Your task to perform on an android device: Clear the shopping cart on ebay.com. Image 0: 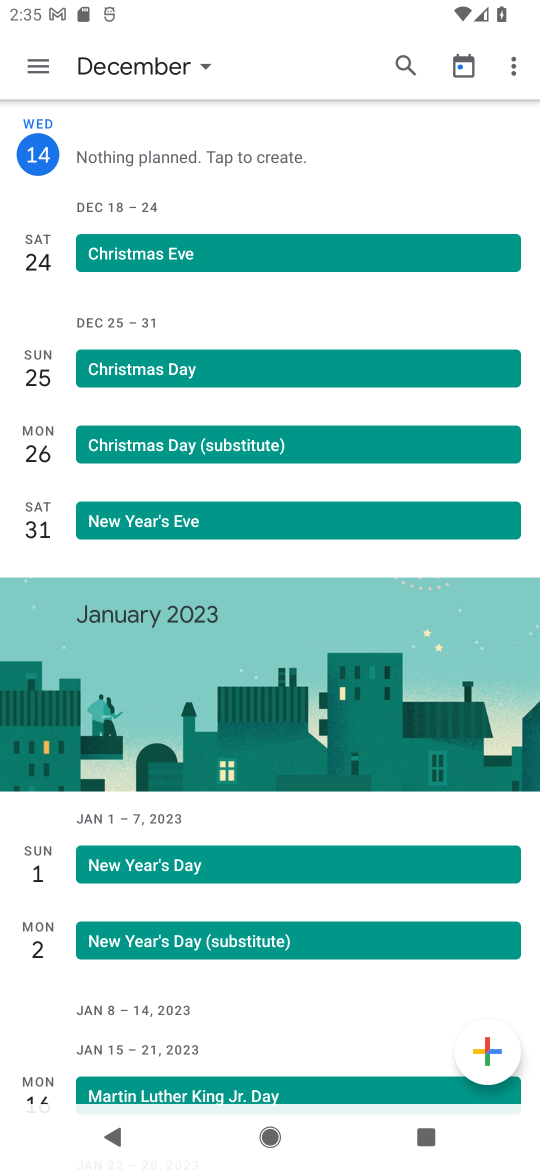
Step 0: press home button
Your task to perform on an android device: Clear the shopping cart on ebay.com. Image 1: 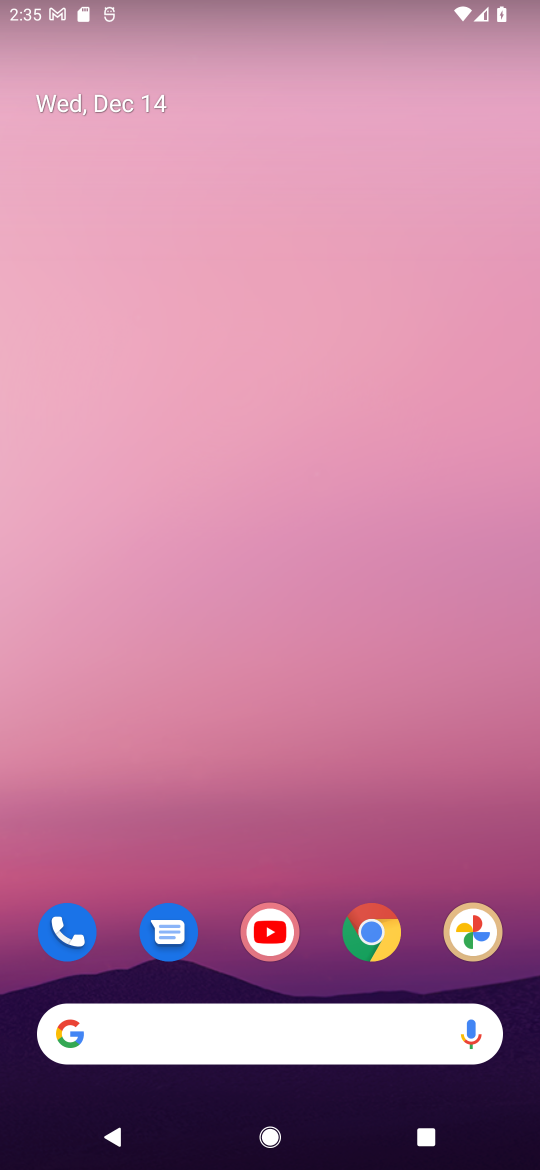
Step 1: click (284, 1024)
Your task to perform on an android device: Clear the shopping cart on ebay.com. Image 2: 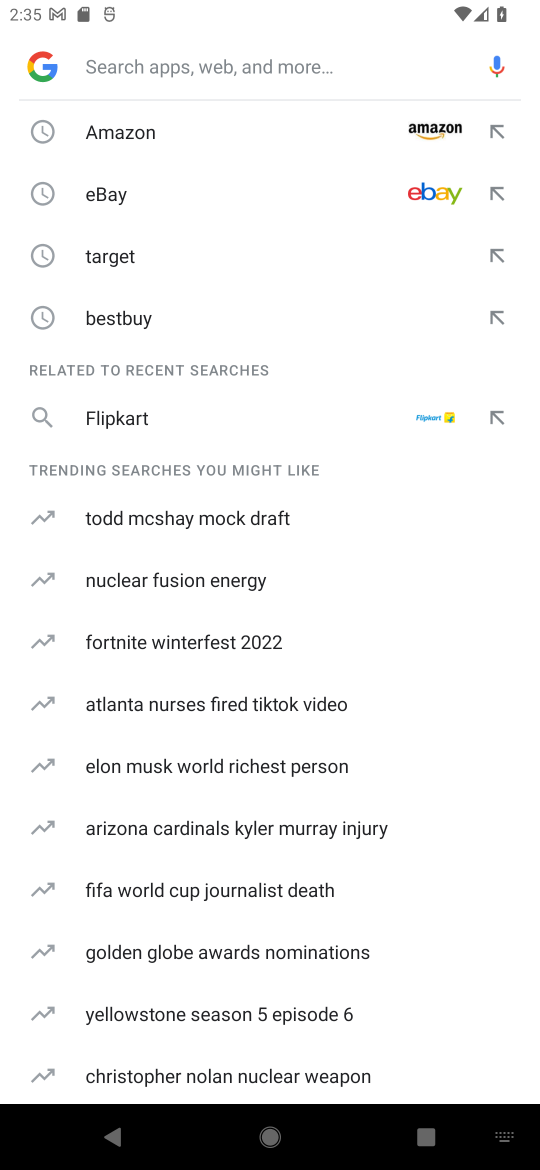
Step 2: click (172, 184)
Your task to perform on an android device: Clear the shopping cart on ebay.com. Image 3: 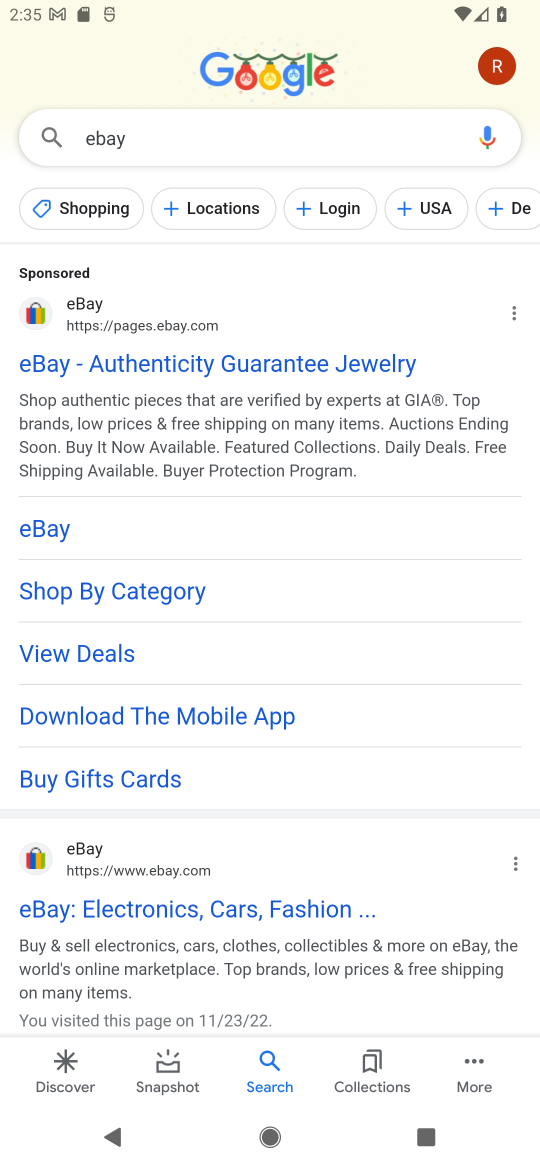
Step 3: click (58, 356)
Your task to perform on an android device: Clear the shopping cart on ebay.com. Image 4: 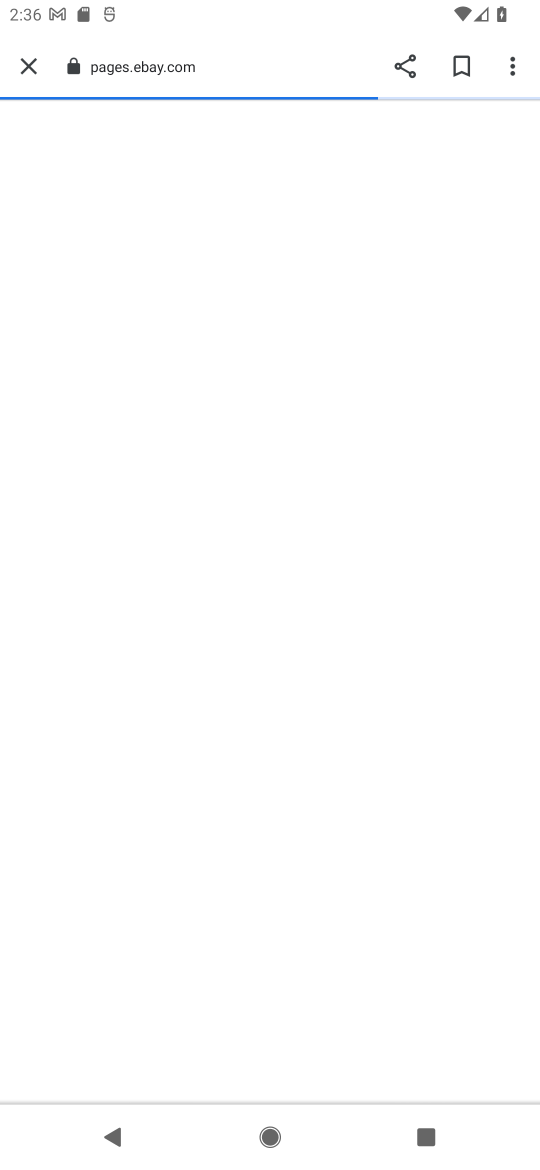
Step 4: click (100, 306)
Your task to perform on an android device: Clear the shopping cart on ebay.com. Image 5: 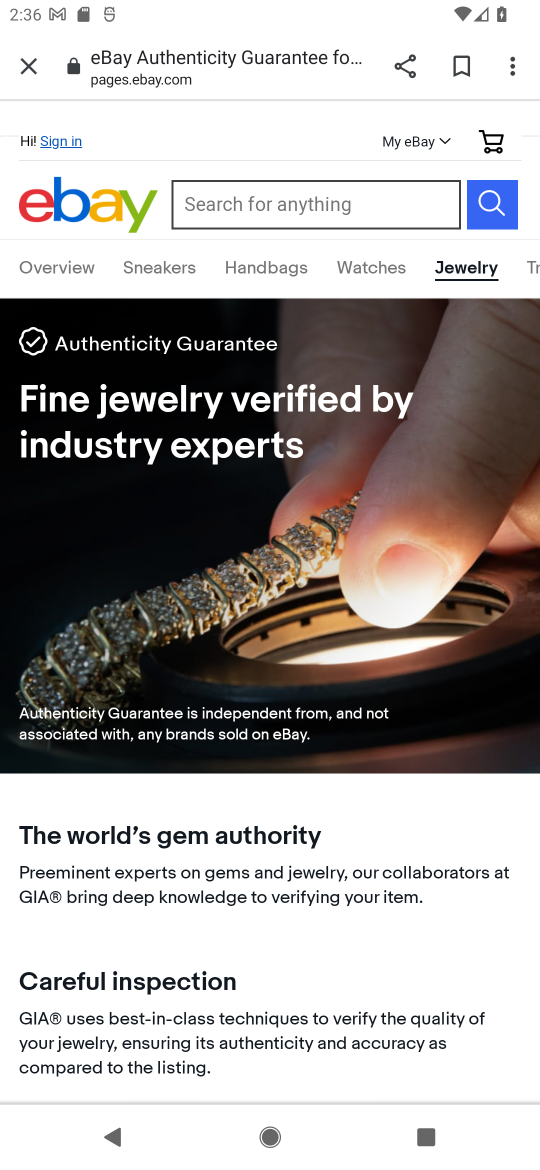
Step 5: click (488, 142)
Your task to perform on an android device: Clear the shopping cart on ebay.com. Image 6: 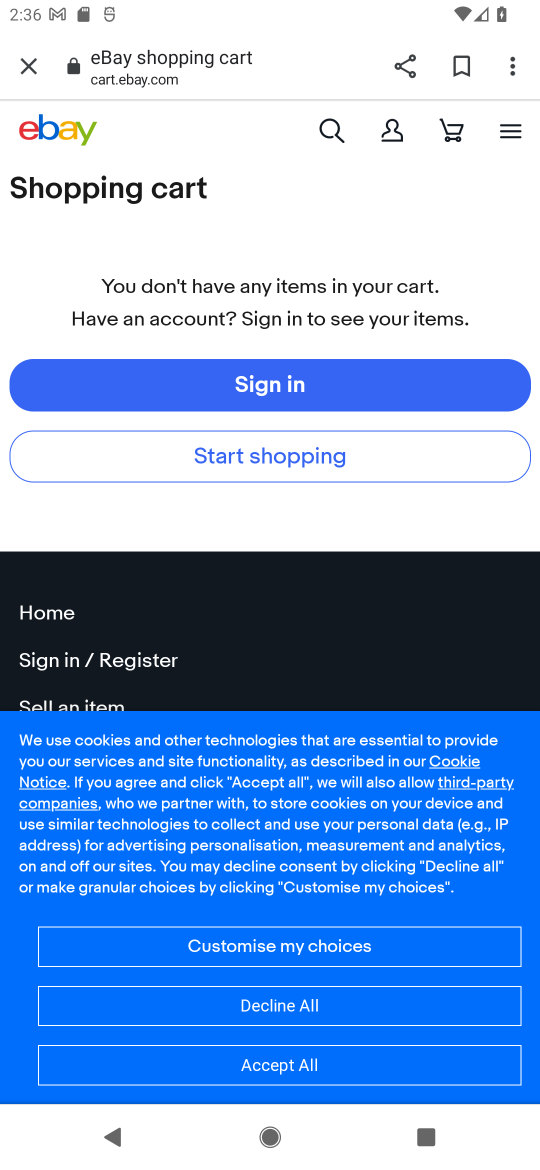
Step 6: task complete